Your task to perform on an android device: Open network settings Image 0: 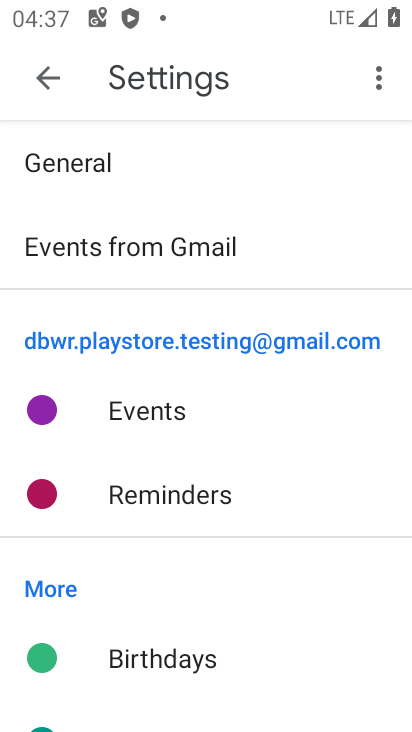
Step 0: press home button
Your task to perform on an android device: Open network settings Image 1: 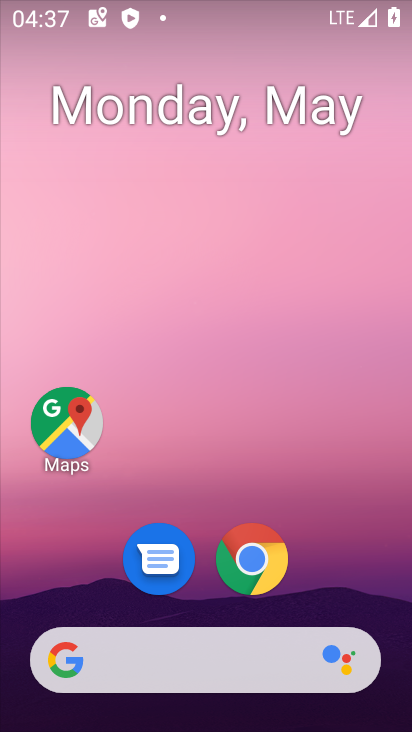
Step 1: drag from (275, 587) to (274, 43)
Your task to perform on an android device: Open network settings Image 2: 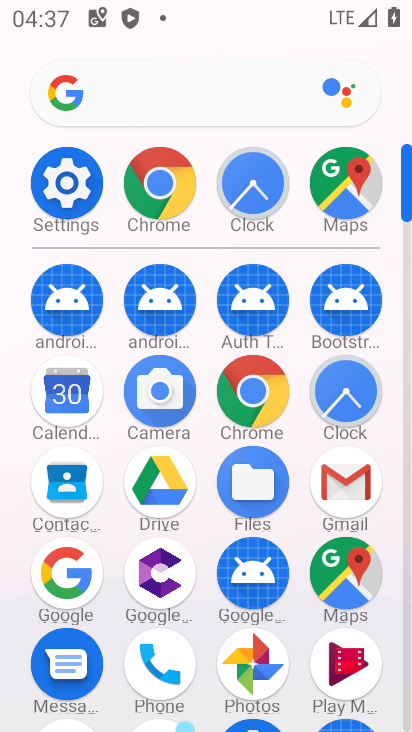
Step 2: click (71, 192)
Your task to perform on an android device: Open network settings Image 3: 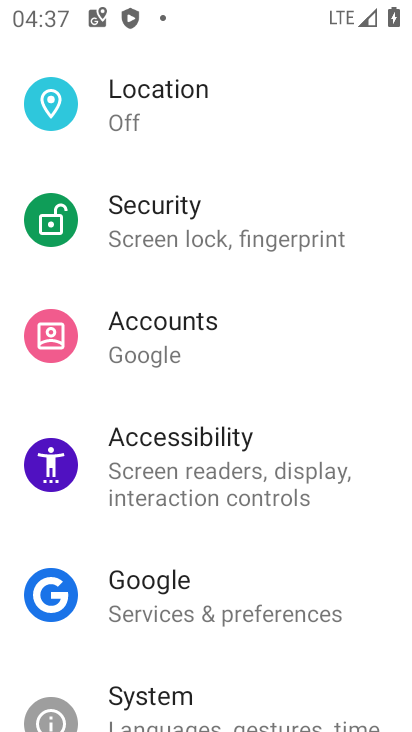
Step 3: drag from (182, 208) to (387, 711)
Your task to perform on an android device: Open network settings Image 4: 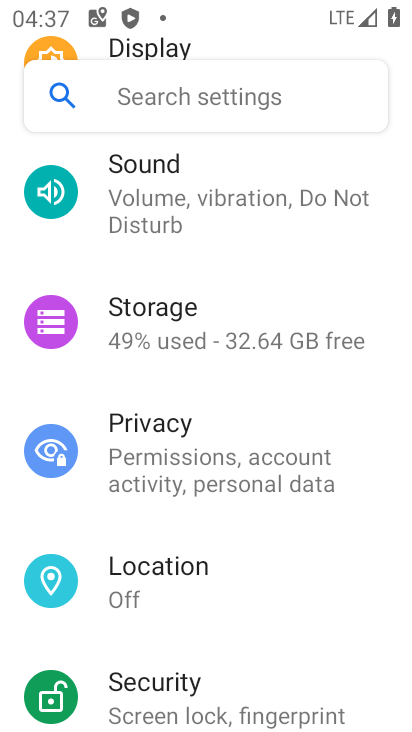
Step 4: drag from (200, 228) to (179, 728)
Your task to perform on an android device: Open network settings Image 5: 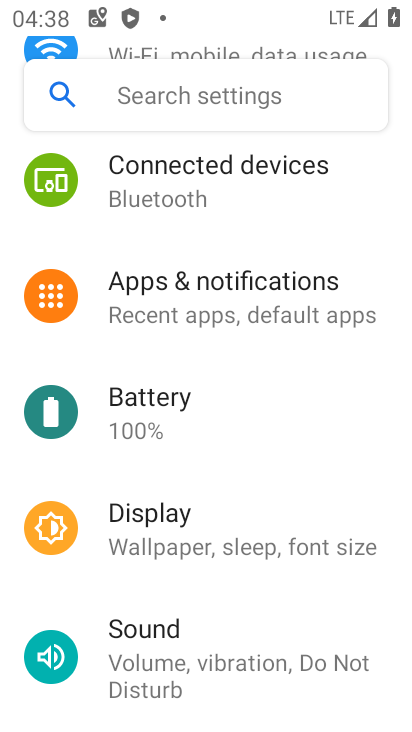
Step 5: drag from (253, 249) to (286, 678)
Your task to perform on an android device: Open network settings Image 6: 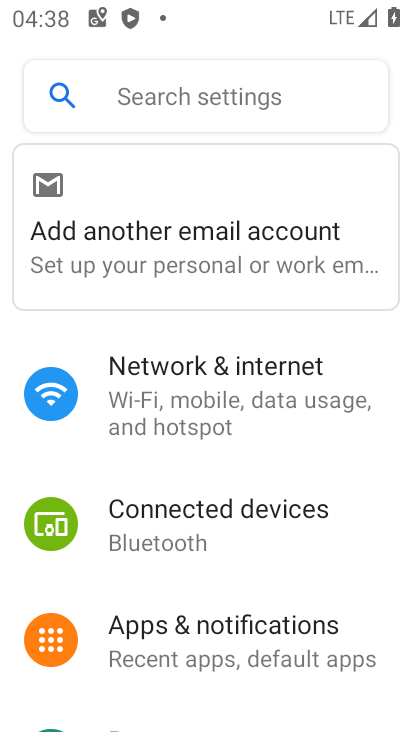
Step 6: click (224, 420)
Your task to perform on an android device: Open network settings Image 7: 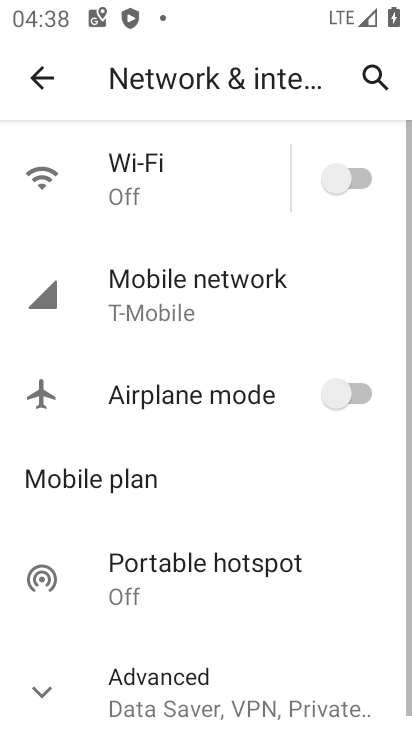
Step 7: task complete